Your task to perform on an android device: What's the news in Bangladesh? Image 0: 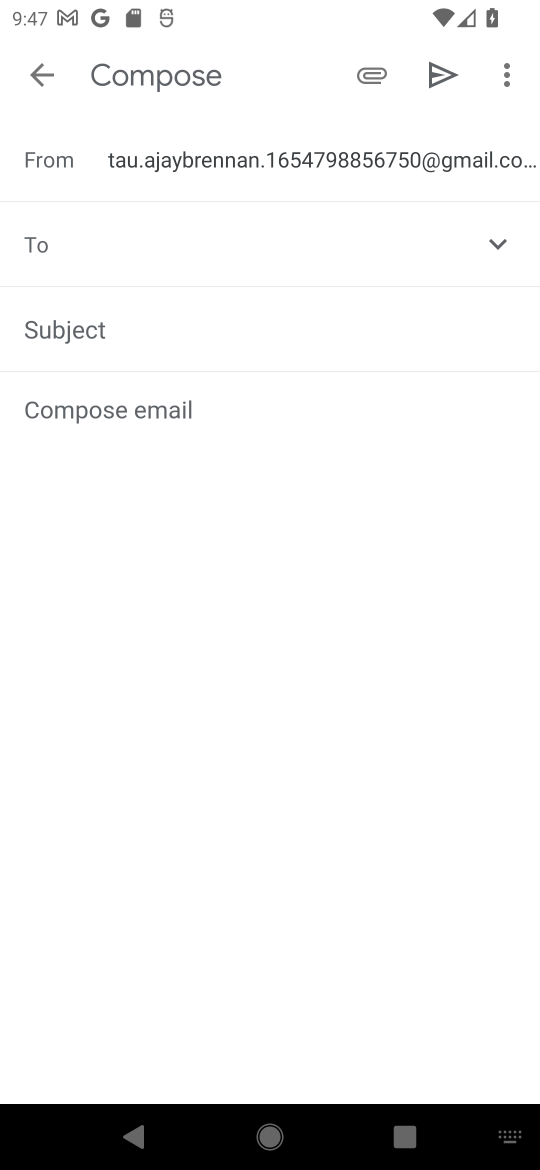
Step 0: press home button
Your task to perform on an android device: What's the news in Bangladesh? Image 1: 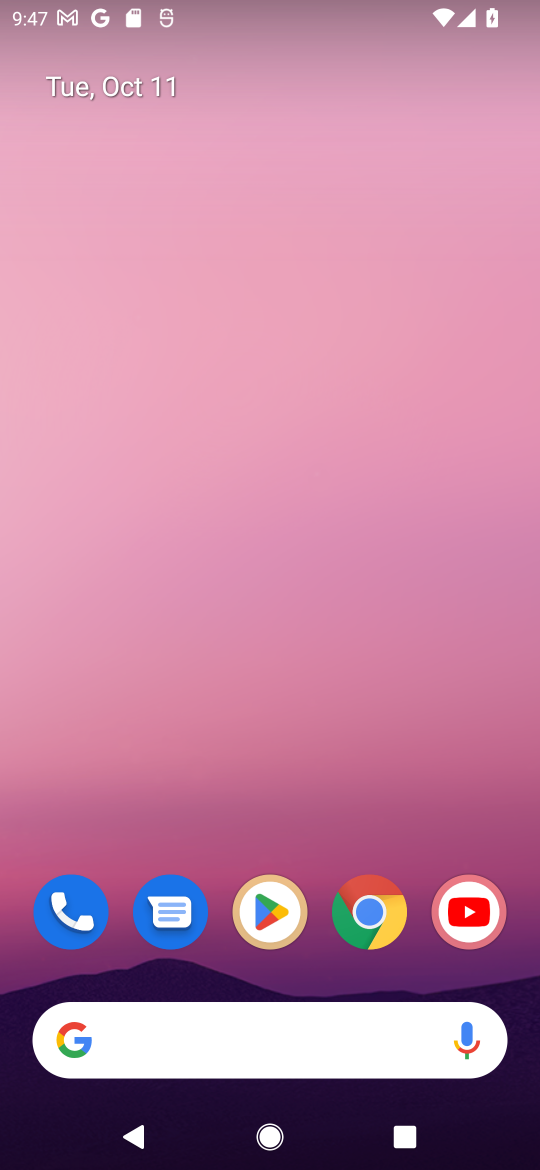
Step 1: click (365, 921)
Your task to perform on an android device: What's the news in Bangladesh? Image 2: 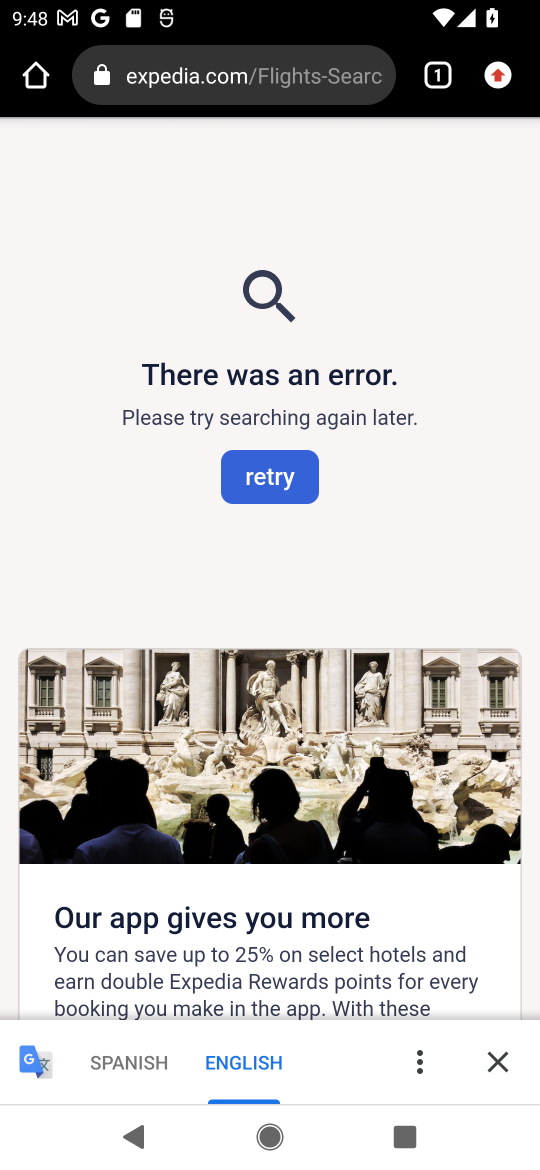
Step 2: click (216, 54)
Your task to perform on an android device: What's the news in Bangladesh? Image 3: 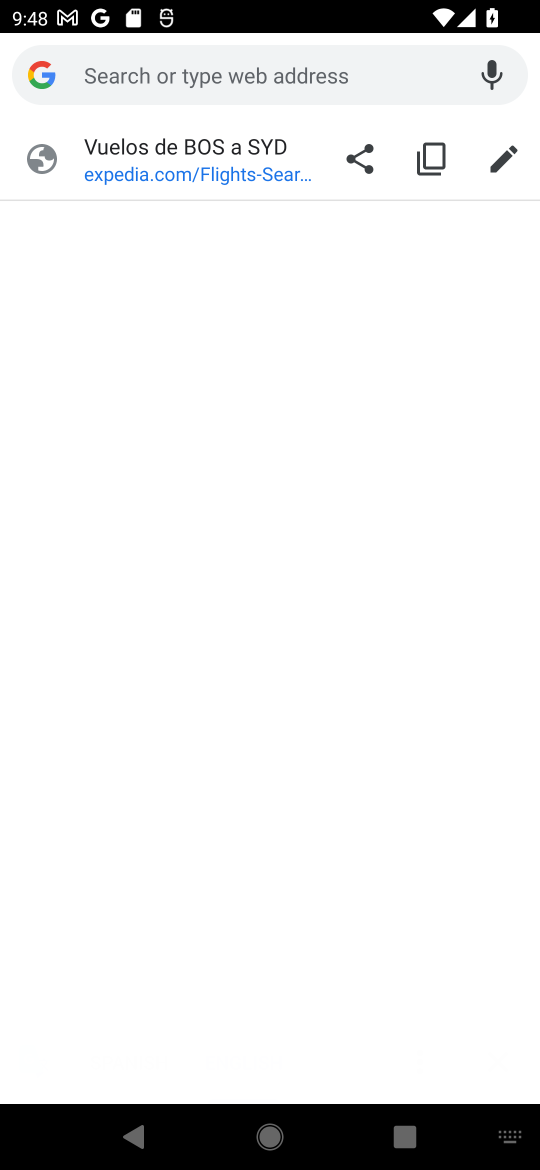
Step 3: type "news in Bangladesh"
Your task to perform on an android device: What's the news in Bangladesh? Image 4: 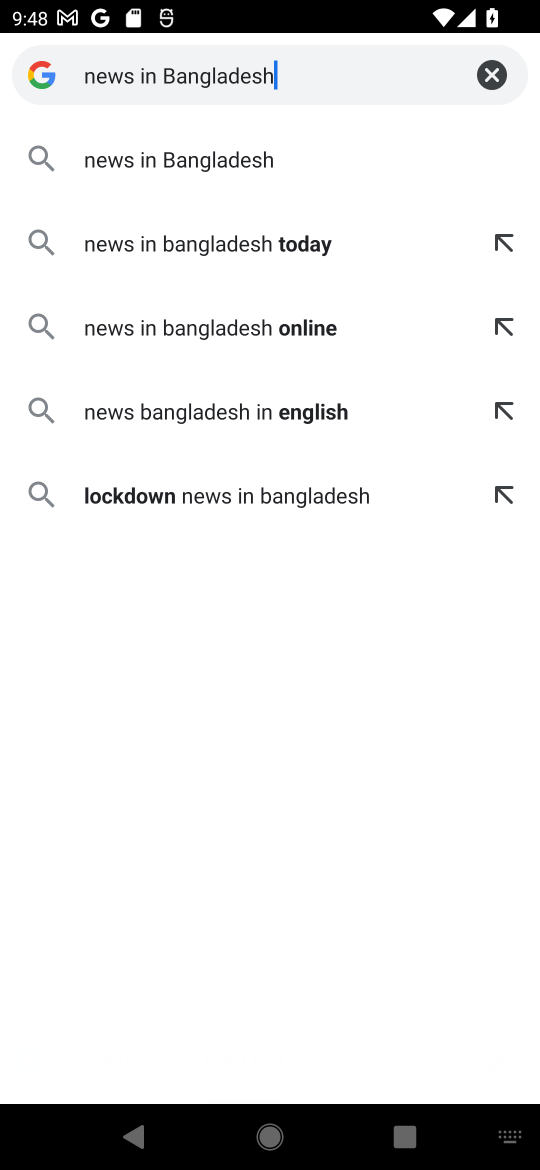
Step 4: click (147, 147)
Your task to perform on an android device: What's the news in Bangladesh? Image 5: 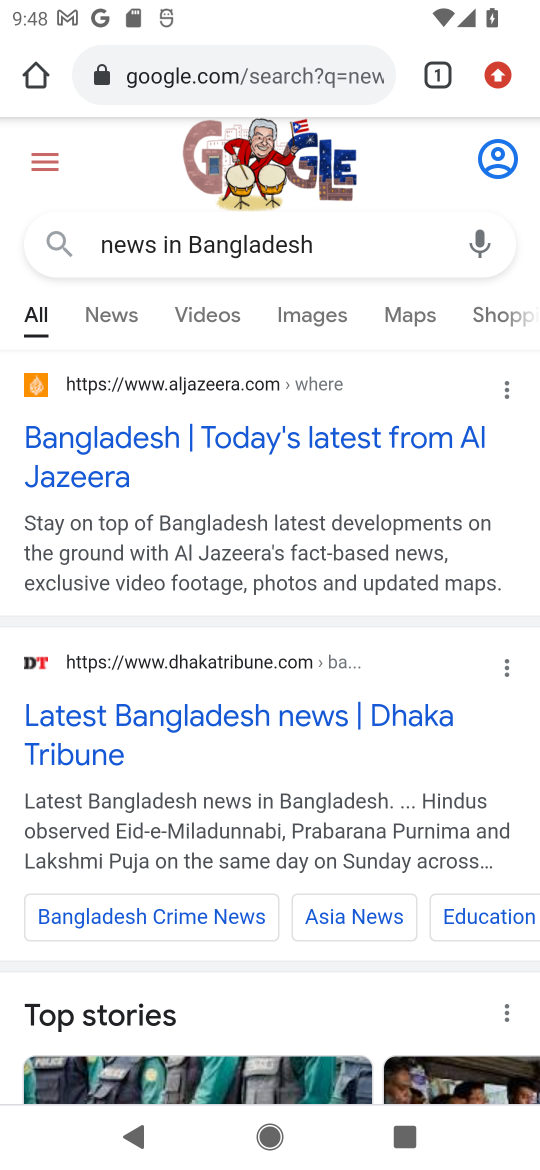
Step 5: click (105, 449)
Your task to perform on an android device: What's the news in Bangladesh? Image 6: 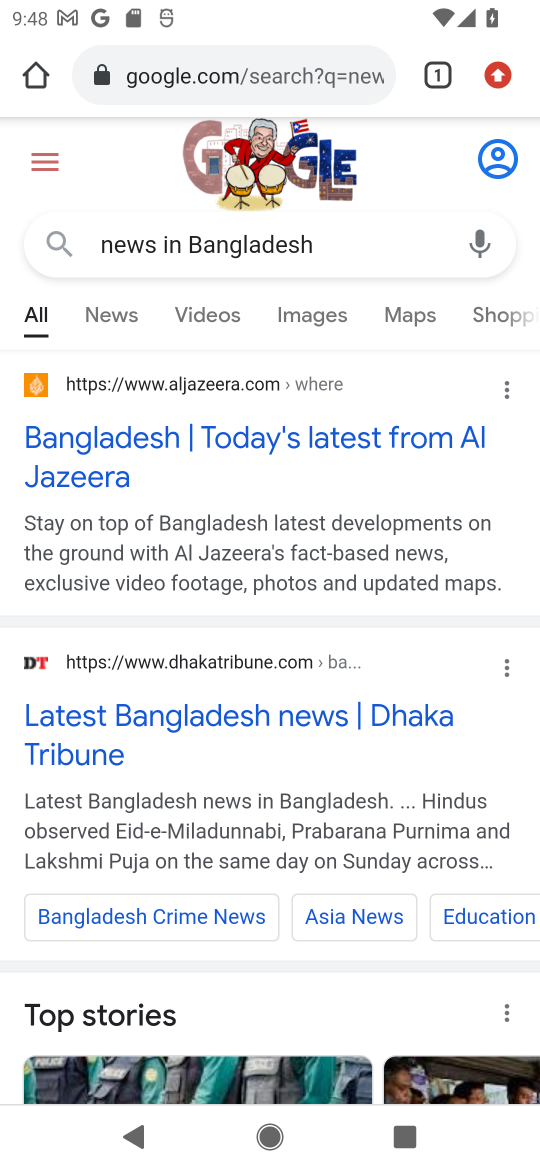
Step 6: click (105, 449)
Your task to perform on an android device: What's the news in Bangladesh? Image 7: 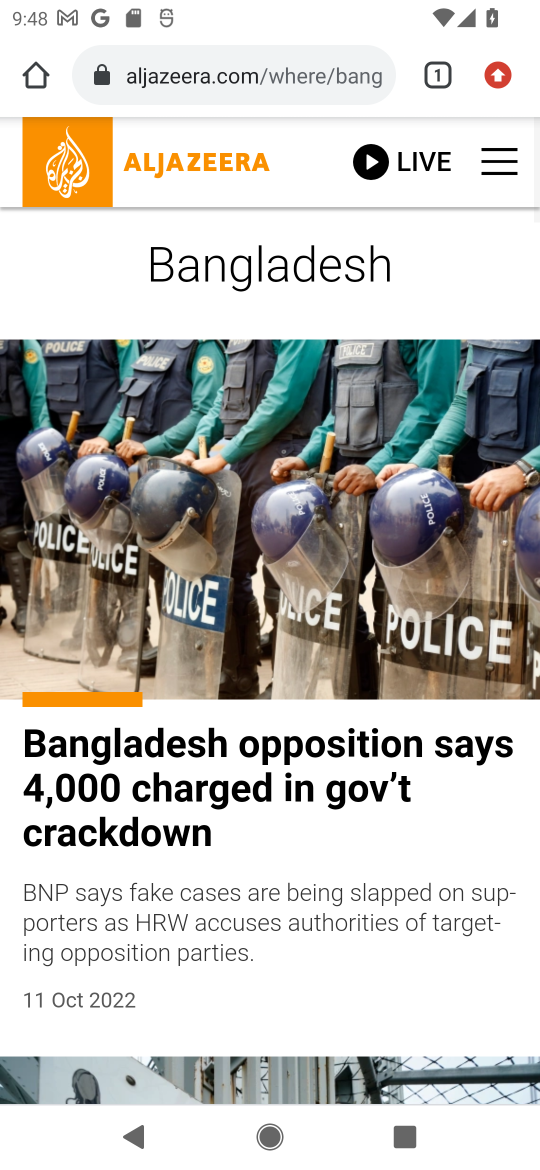
Step 7: drag from (260, 912) to (231, 558)
Your task to perform on an android device: What's the news in Bangladesh? Image 8: 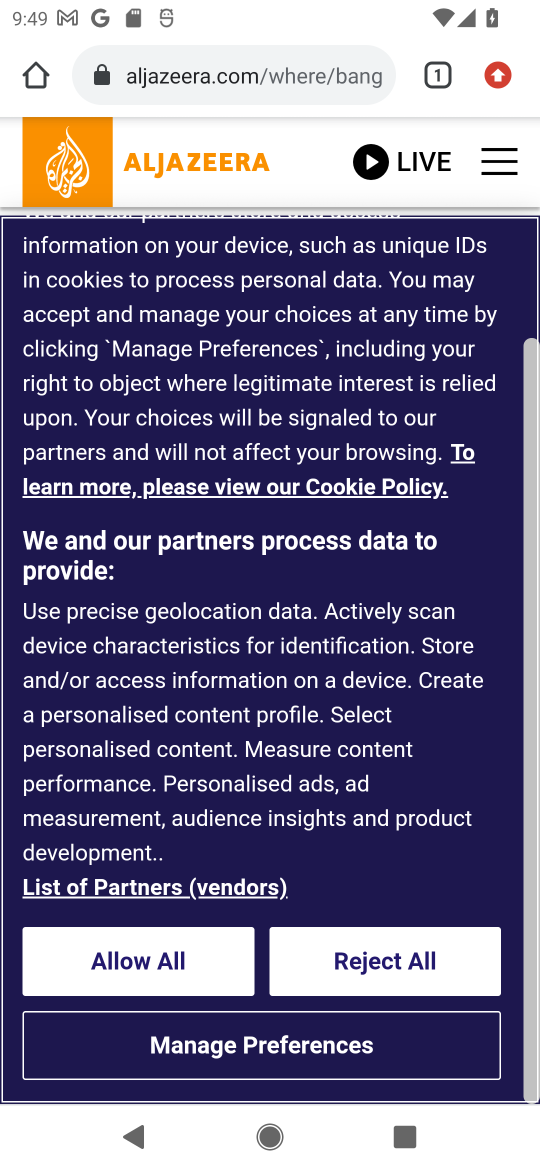
Step 8: click (123, 966)
Your task to perform on an android device: What's the news in Bangladesh? Image 9: 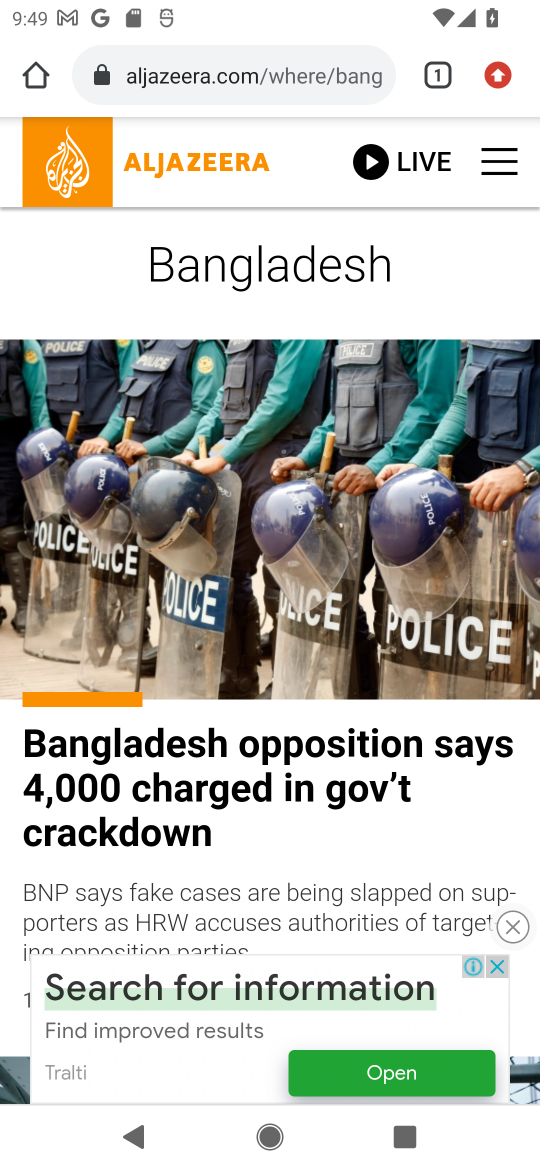
Step 9: drag from (324, 702) to (332, 273)
Your task to perform on an android device: What's the news in Bangladesh? Image 10: 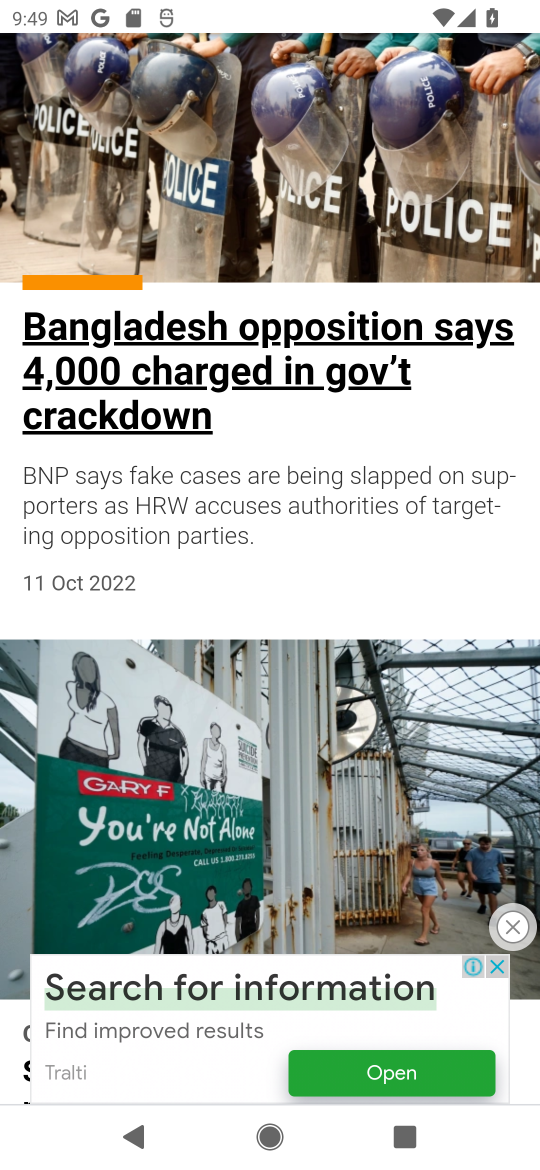
Step 10: drag from (282, 476) to (263, 90)
Your task to perform on an android device: What's the news in Bangladesh? Image 11: 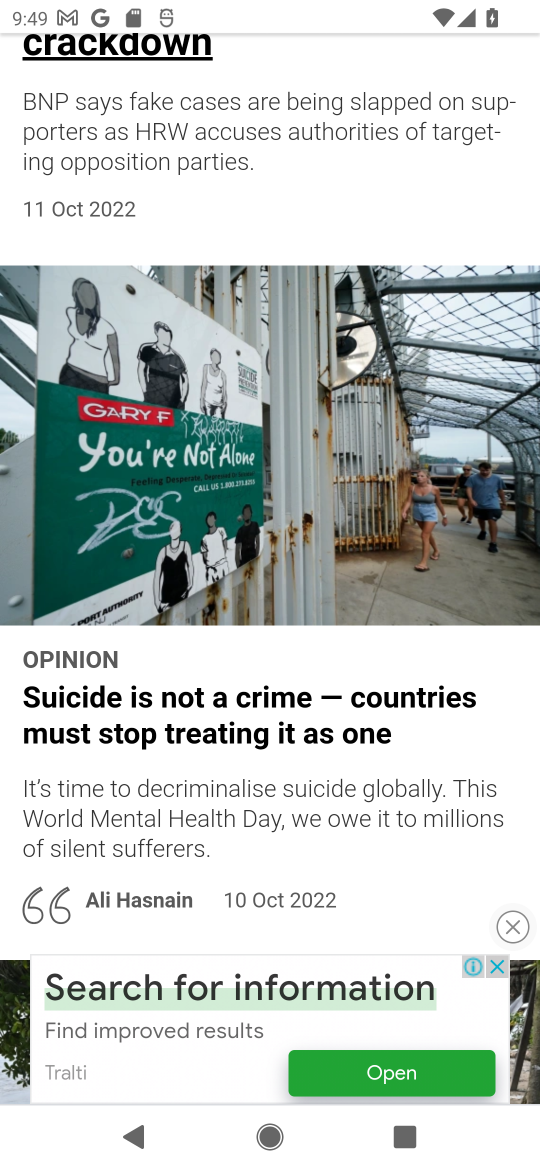
Step 11: drag from (277, 404) to (222, 774)
Your task to perform on an android device: What's the news in Bangladesh? Image 12: 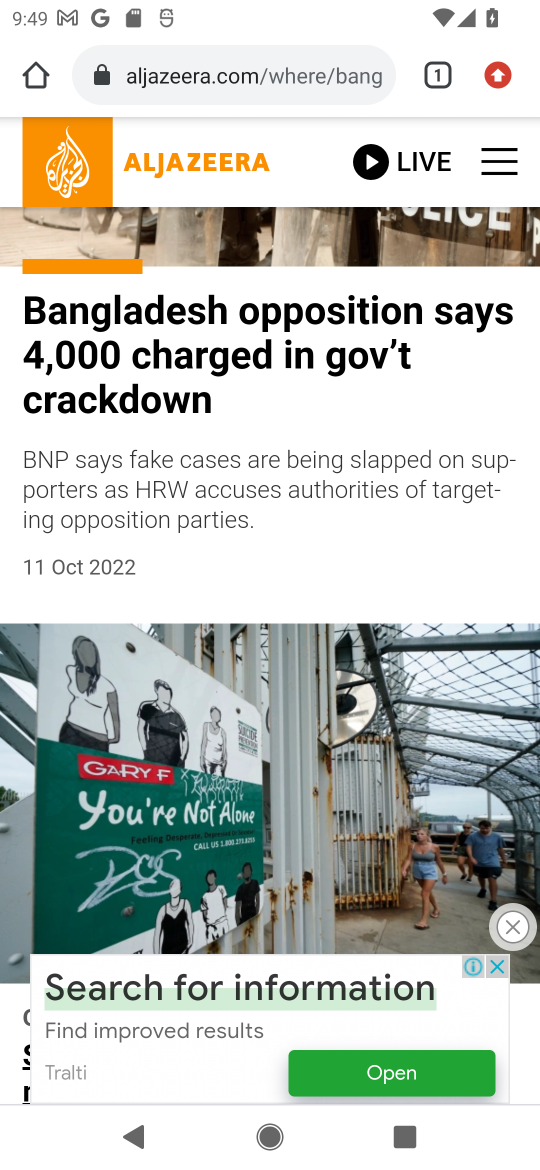
Step 12: click (190, 289)
Your task to perform on an android device: What's the news in Bangladesh? Image 13: 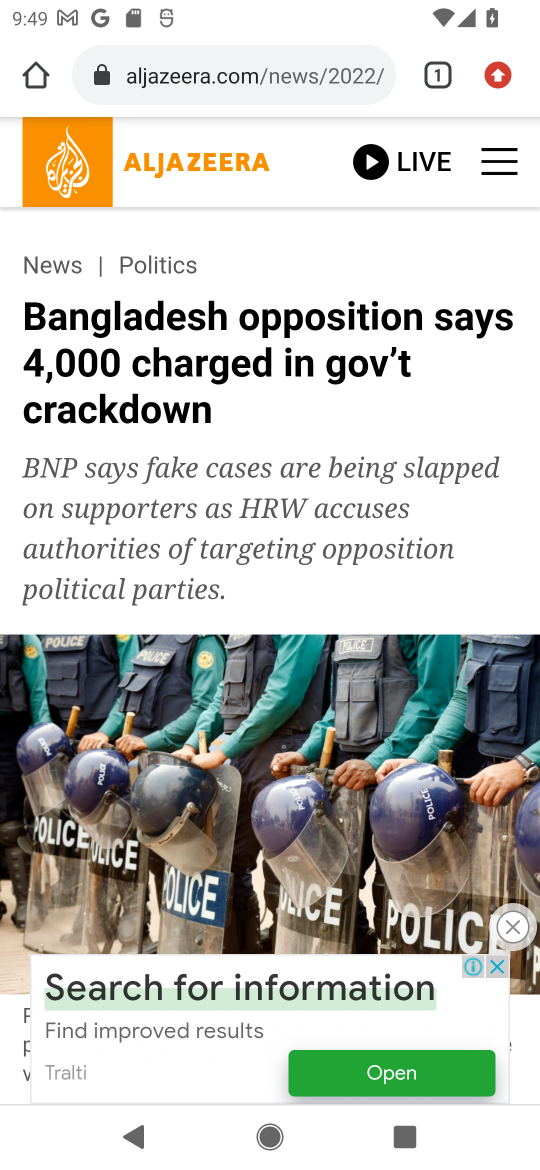
Step 13: task complete